Your task to perform on an android device: see sites visited before in the chrome app Image 0: 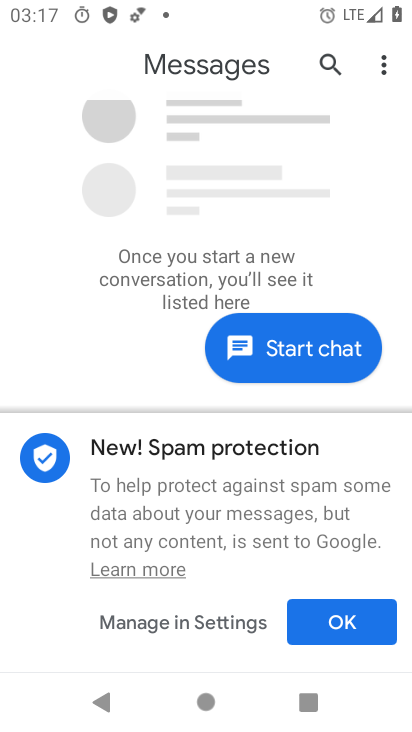
Step 0: click (323, 510)
Your task to perform on an android device: see sites visited before in the chrome app Image 1: 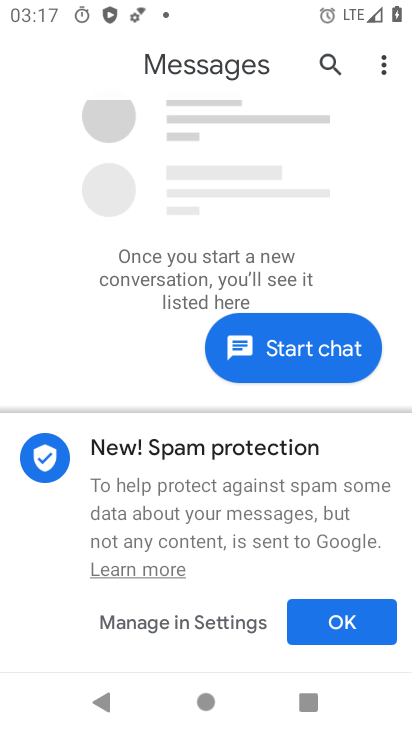
Step 1: press home button
Your task to perform on an android device: see sites visited before in the chrome app Image 2: 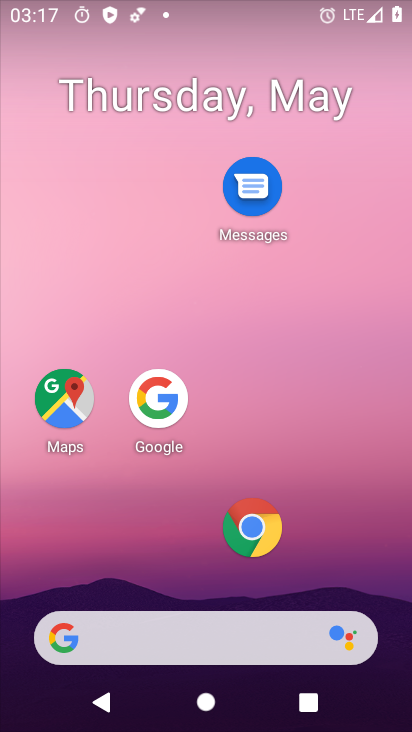
Step 2: drag from (210, 584) to (217, 130)
Your task to perform on an android device: see sites visited before in the chrome app Image 3: 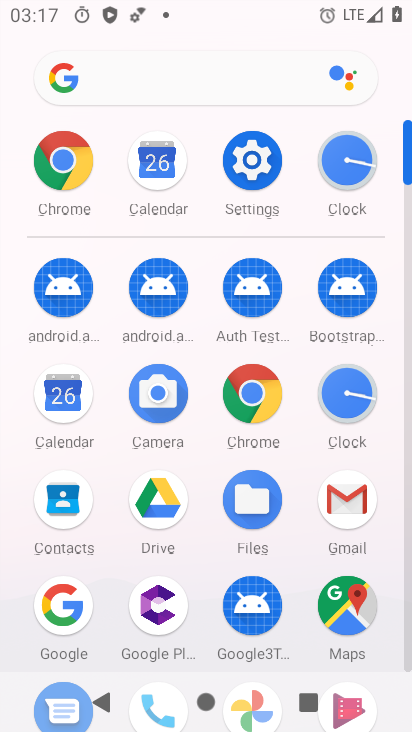
Step 3: click (242, 388)
Your task to perform on an android device: see sites visited before in the chrome app Image 4: 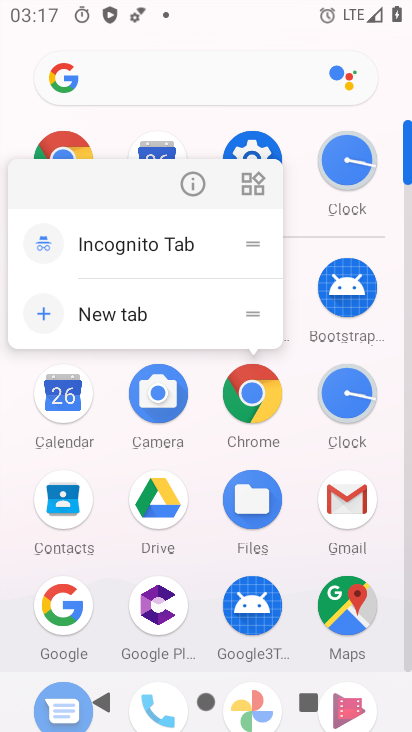
Step 4: click (193, 185)
Your task to perform on an android device: see sites visited before in the chrome app Image 5: 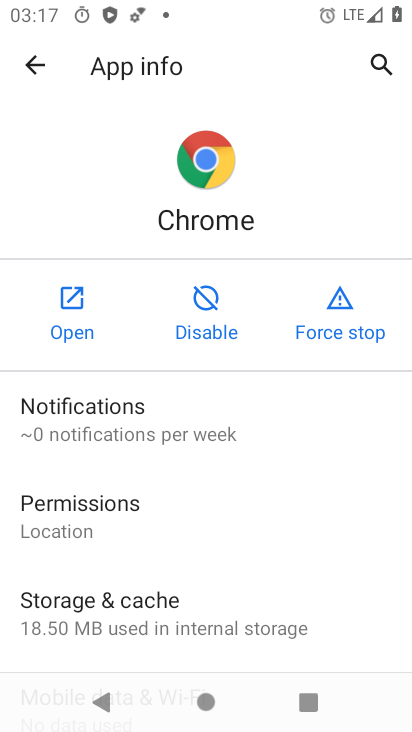
Step 5: click (62, 312)
Your task to perform on an android device: see sites visited before in the chrome app Image 6: 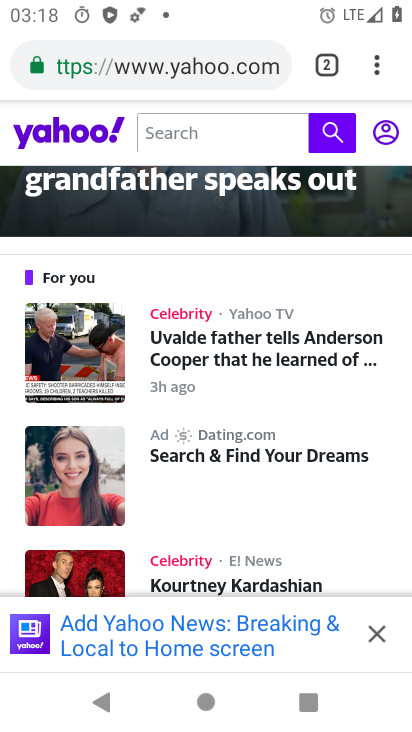
Step 6: click (375, 53)
Your task to perform on an android device: see sites visited before in the chrome app Image 7: 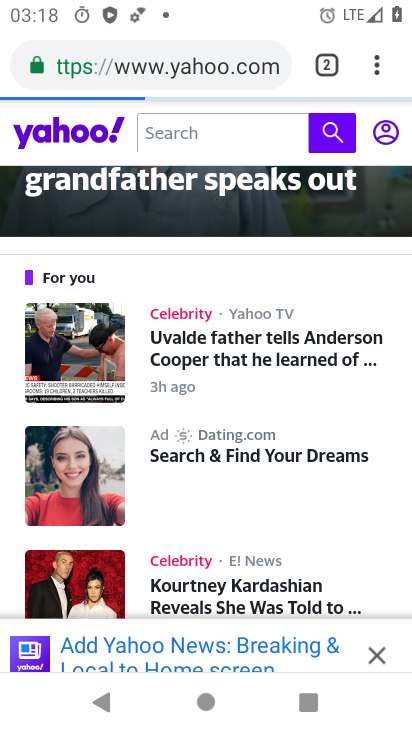
Step 7: click (371, 63)
Your task to perform on an android device: see sites visited before in the chrome app Image 8: 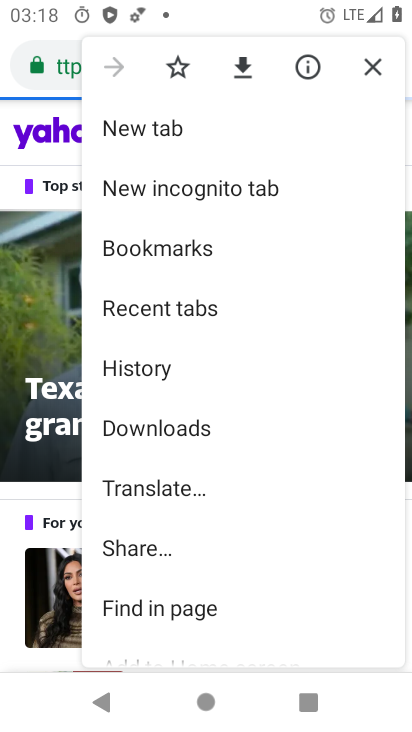
Step 8: drag from (206, 554) to (218, 4)
Your task to perform on an android device: see sites visited before in the chrome app Image 9: 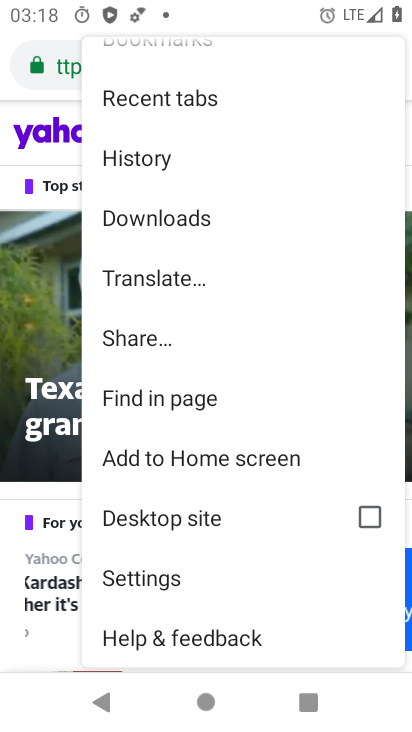
Step 9: click (173, 580)
Your task to perform on an android device: see sites visited before in the chrome app Image 10: 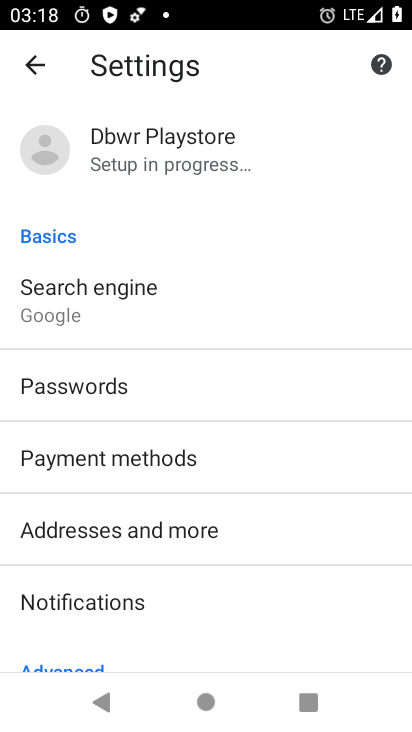
Step 10: drag from (159, 597) to (248, 168)
Your task to perform on an android device: see sites visited before in the chrome app Image 11: 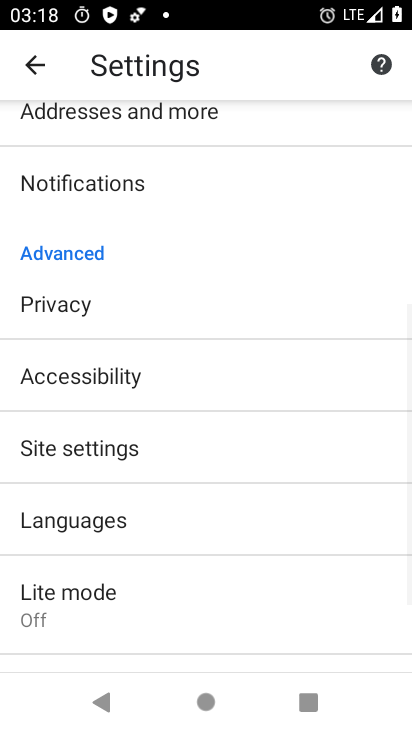
Step 11: drag from (144, 543) to (207, 262)
Your task to perform on an android device: see sites visited before in the chrome app Image 12: 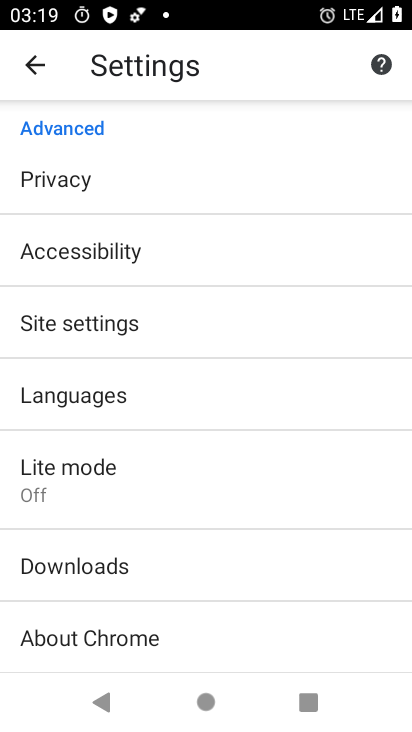
Step 12: click (22, 74)
Your task to perform on an android device: see sites visited before in the chrome app Image 13: 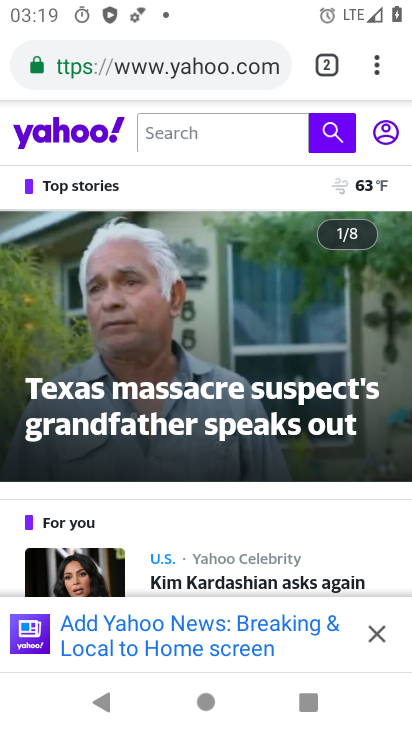
Step 13: task complete